Your task to perform on an android device: What's the weather today? Image 0: 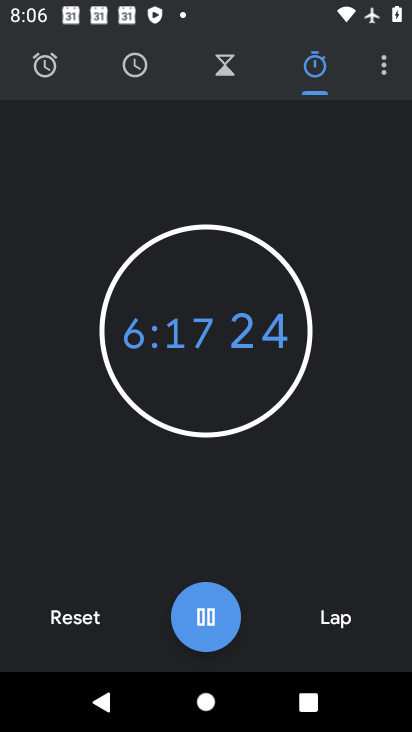
Step 0: press home button
Your task to perform on an android device: What's the weather today? Image 1: 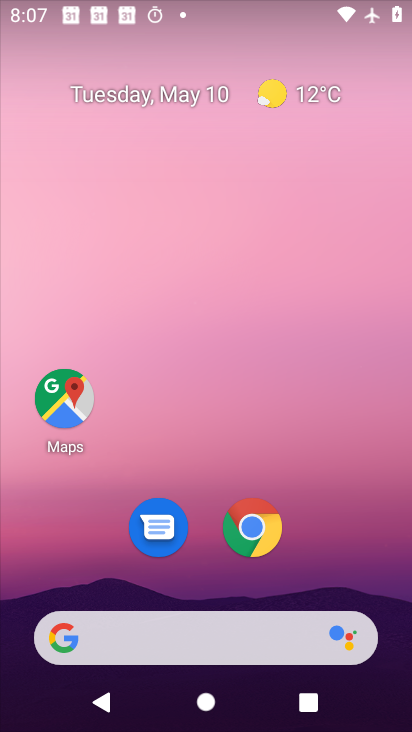
Step 1: drag from (256, 567) to (260, 196)
Your task to perform on an android device: What's the weather today? Image 2: 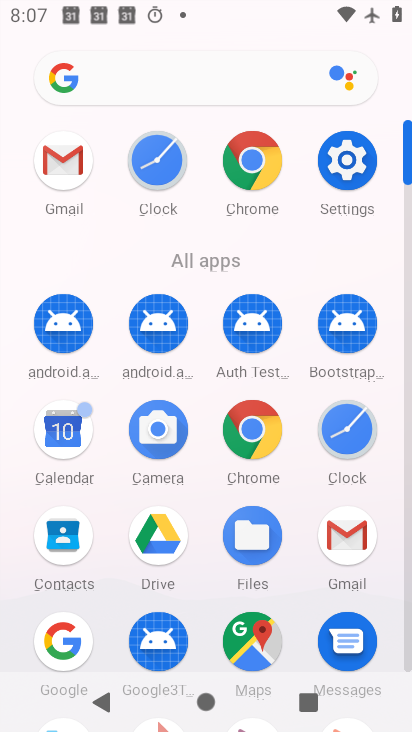
Step 2: click (259, 200)
Your task to perform on an android device: What's the weather today? Image 3: 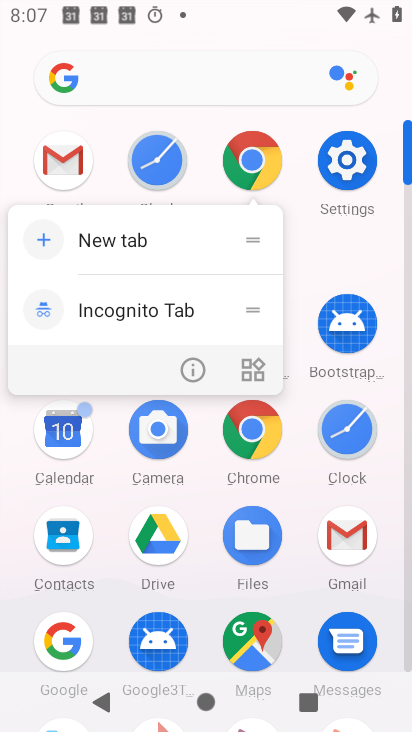
Step 3: click (263, 162)
Your task to perform on an android device: What's the weather today? Image 4: 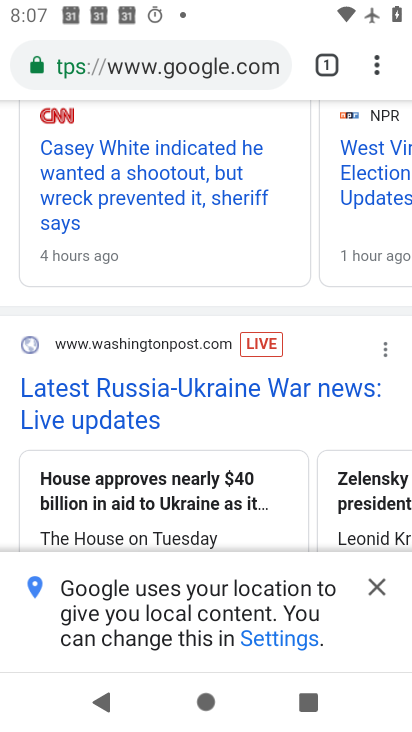
Step 4: click (264, 76)
Your task to perform on an android device: What's the weather today? Image 5: 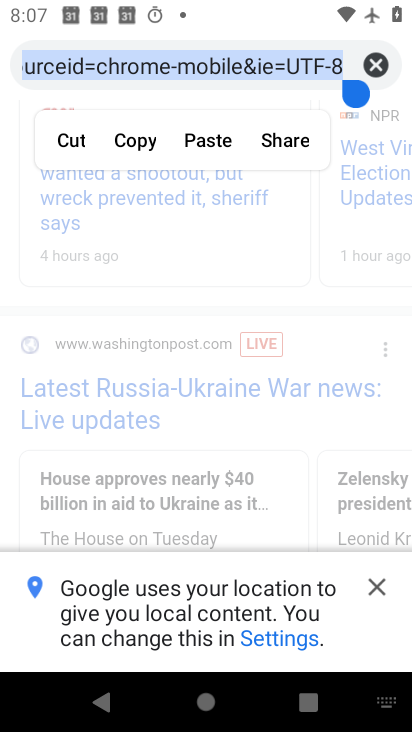
Step 5: type "Whats the weather today"
Your task to perform on an android device: What's the weather today? Image 6: 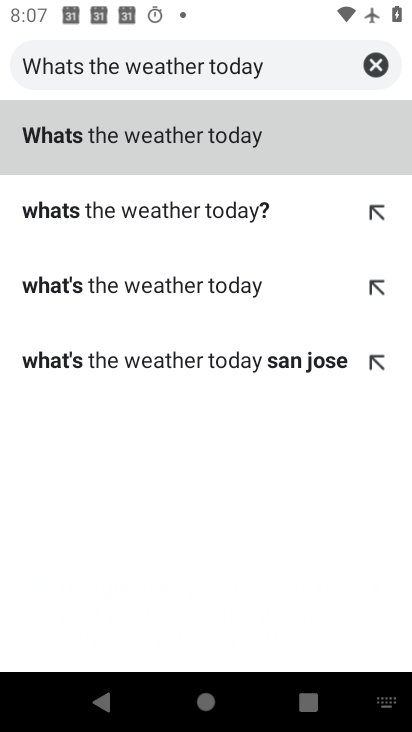
Step 6: click (179, 140)
Your task to perform on an android device: What's the weather today? Image 7: 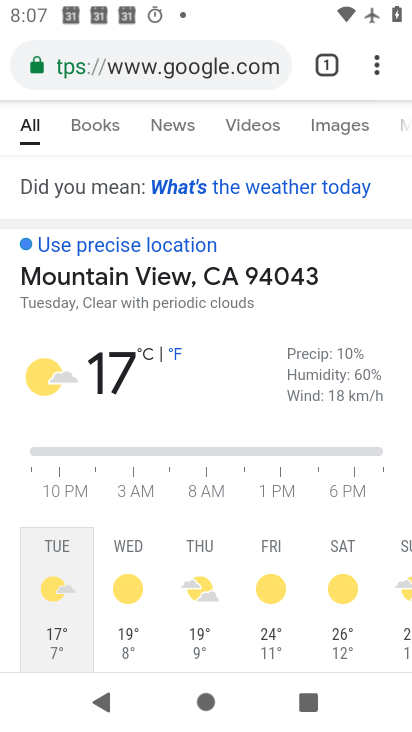
Step 7: task complete